Your task to perform on an android device: Open eBay Image 0: 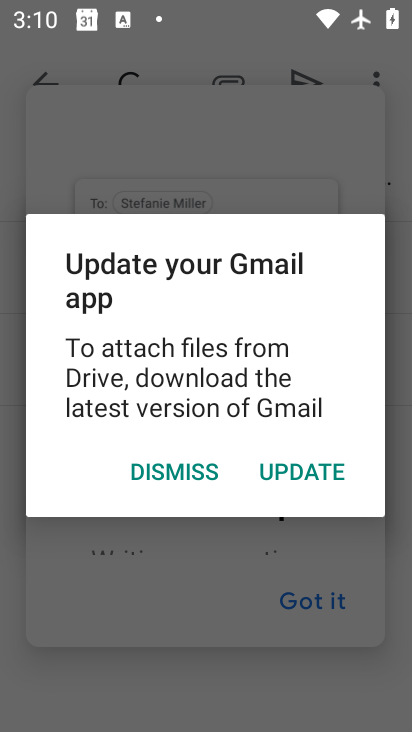
Step 0: press home button
Your task to perform on an android device: Open eBay Image 1: 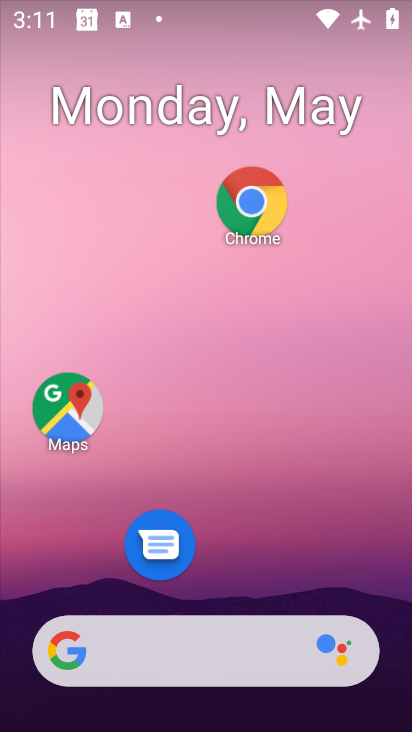
Step 1: click (263, 192)
Your task to perform on an android device: Open eBay Image 2: 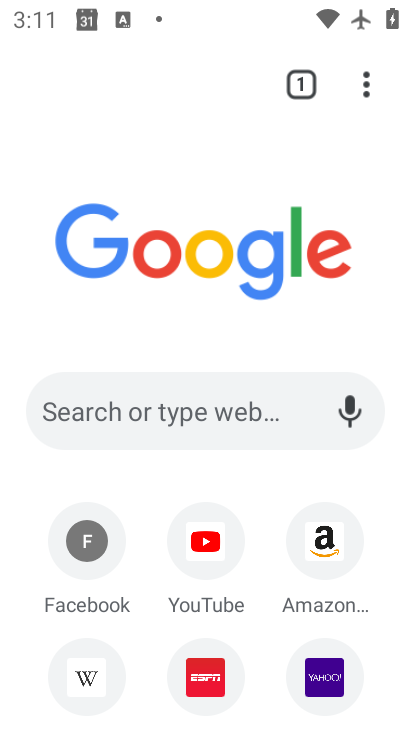
Step 2: click (179, 405)
Your task to perform on an android device: Open eBay Image 3: 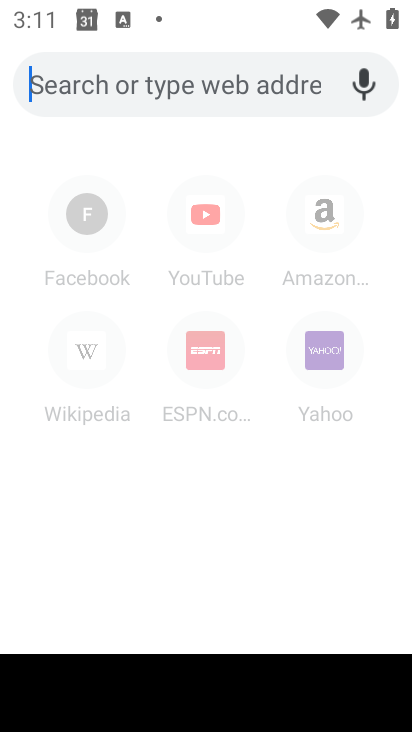
Step 3: type "eBay"
Your task to perform on an android device: Open eBay Image 4: 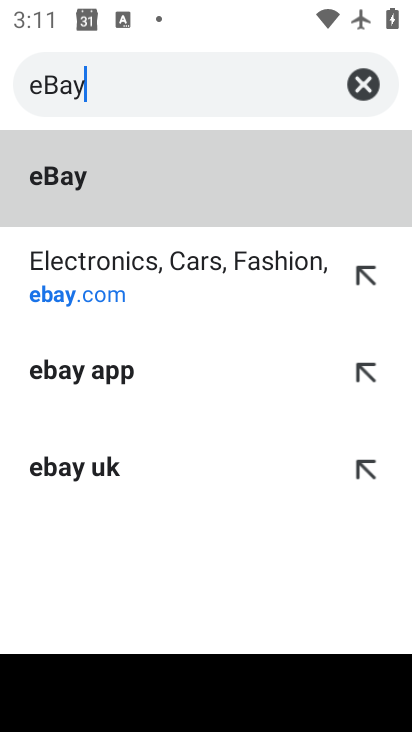
Step 4: click (235, 180)
Your task to perform on an android device: Open eBay Image 5: 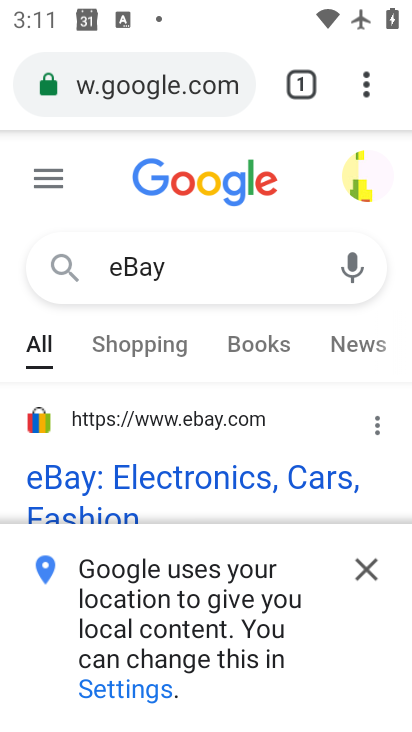
Step 5: click (151, 470)
Your task to perform on an android device: Open eBay Image 6: 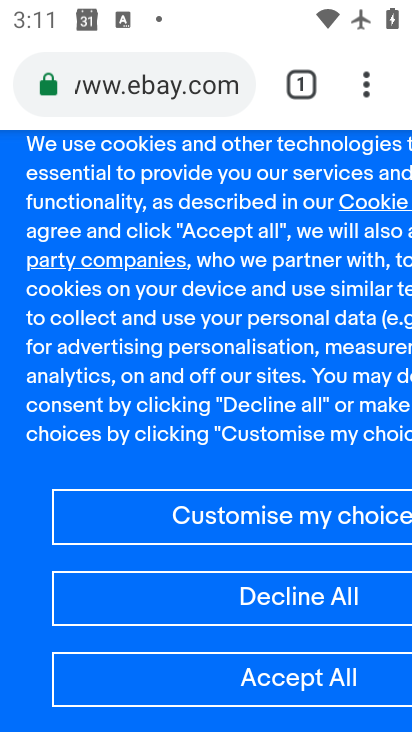
Step 6: task complete